Your task to perform on an android device: toggle pop-ups in chrome Image 0: 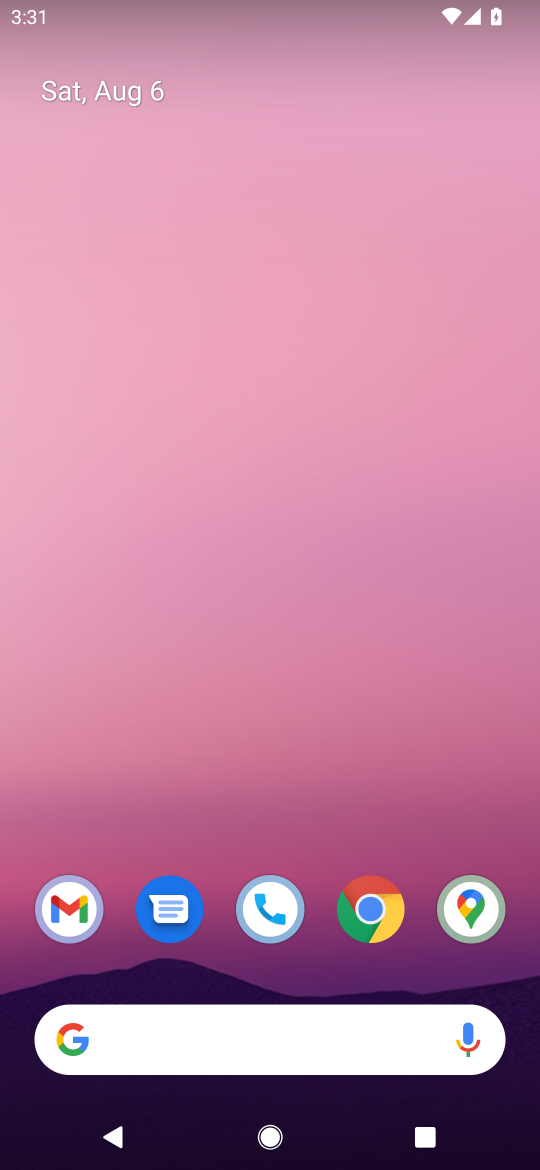
Step 0: click (364, 908)
Your task to perform on an android device: toggle pop-ups in chrome Image 1: 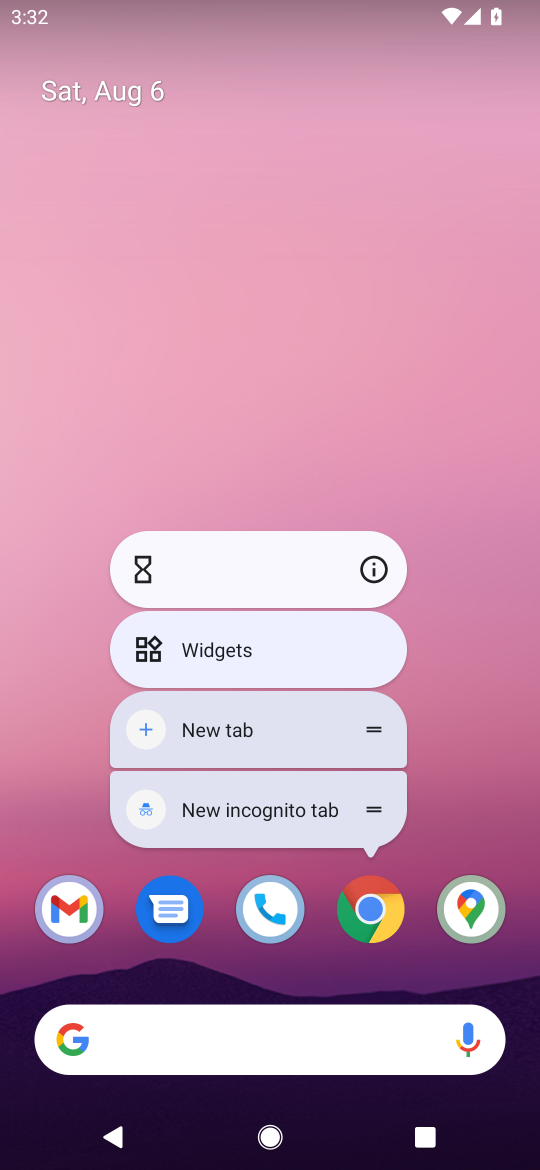
Step 1: click (393, 926)
Your task to perform on an android device: toggle pop-ups in chrome Image 2: 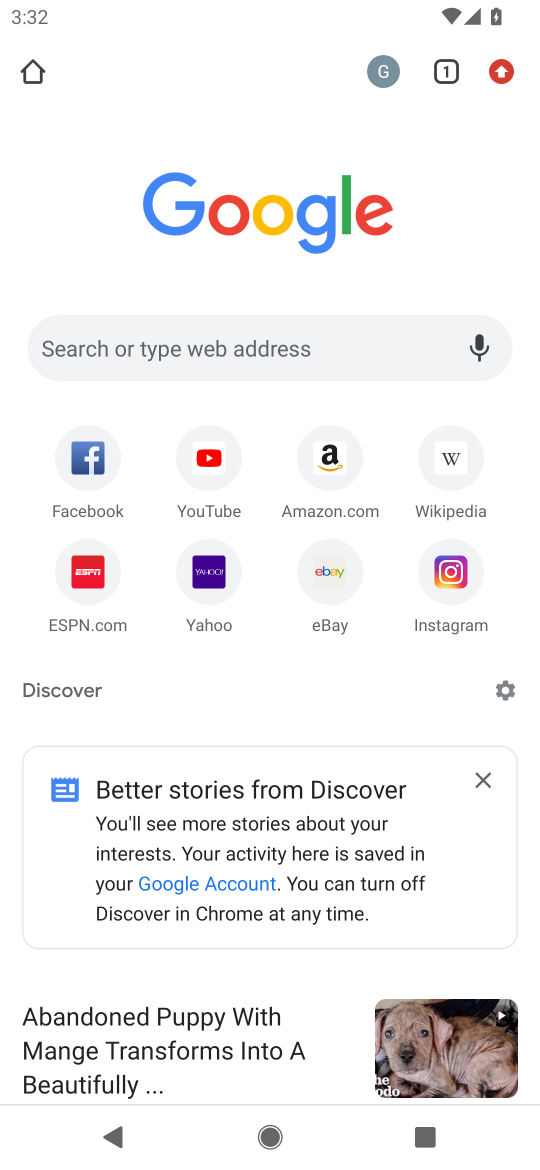
Step 2: drag from (498, 78) to (260, 736)
Your task to perform on an android device: toggle pop-ups in chrome Image 3: 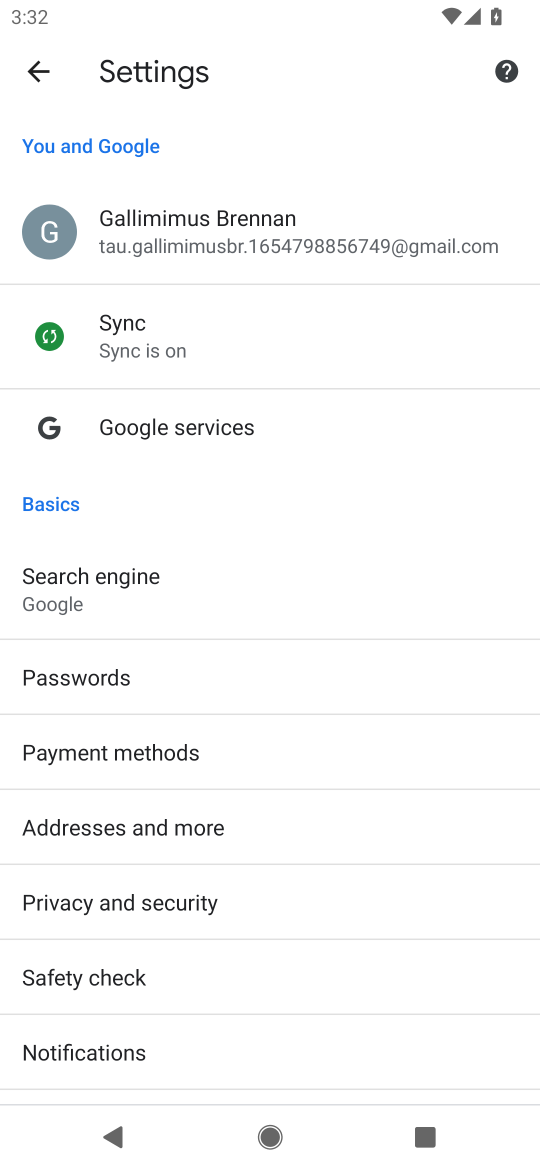
Step 3: drag from (107, 1031) to (336, 490)
Your task to perform on an android device: toggle pop-ups in chrome Image 4: 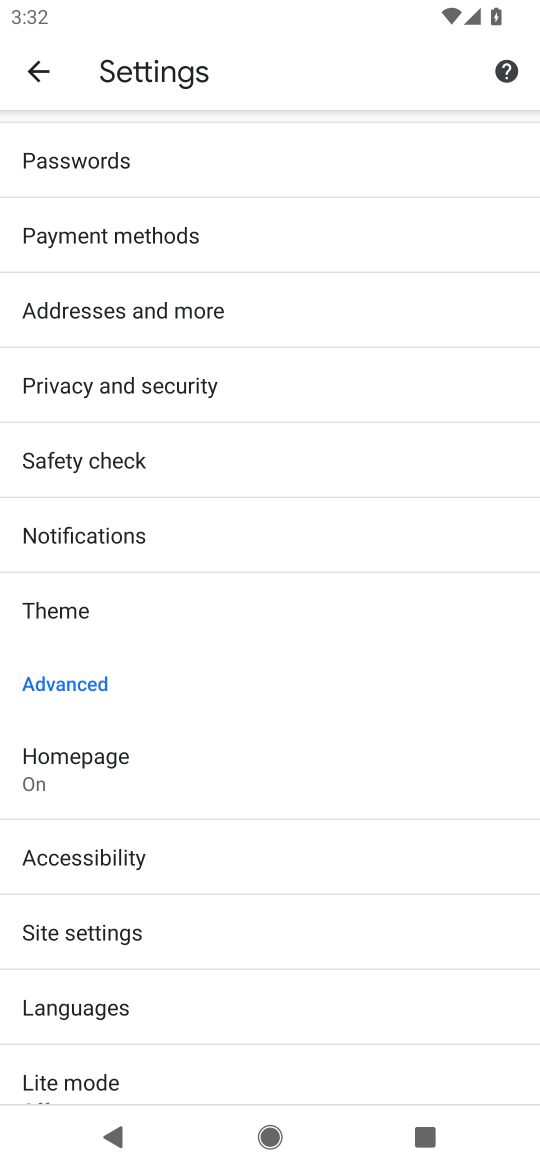
Step 4: click (145, 934)
Your task to perform on an android device: toggle pop-ups in chrome Image 5: 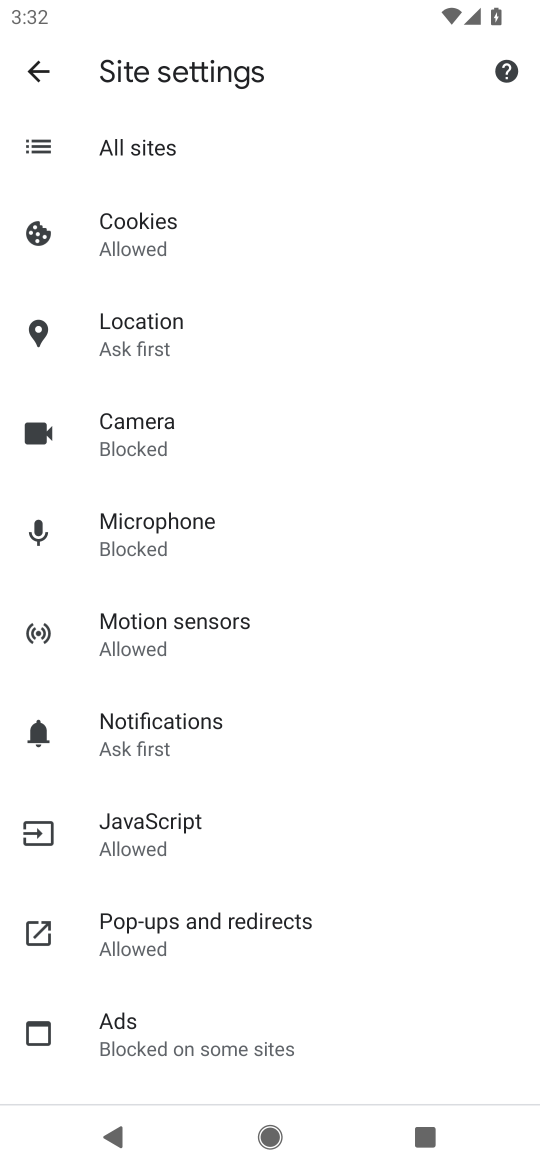
Step 5: click (153, 932)
Your task to perform on an android device: toggle pop-ups in chrome Image 6: 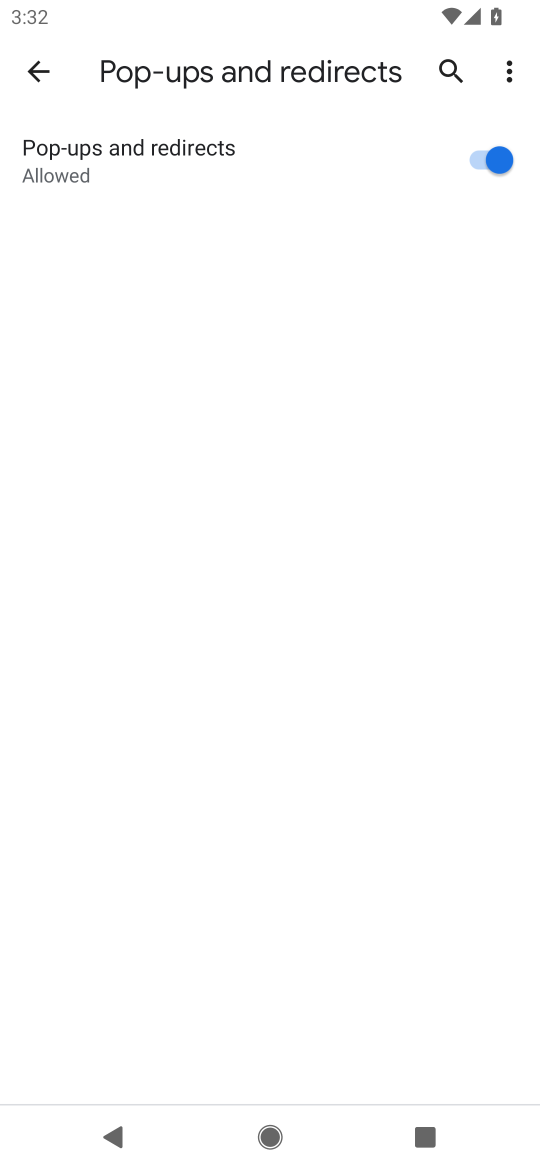
Step 6: click (510, 145)
Your task to perform on an android device: toggle pop-ups in chrome Image 7: 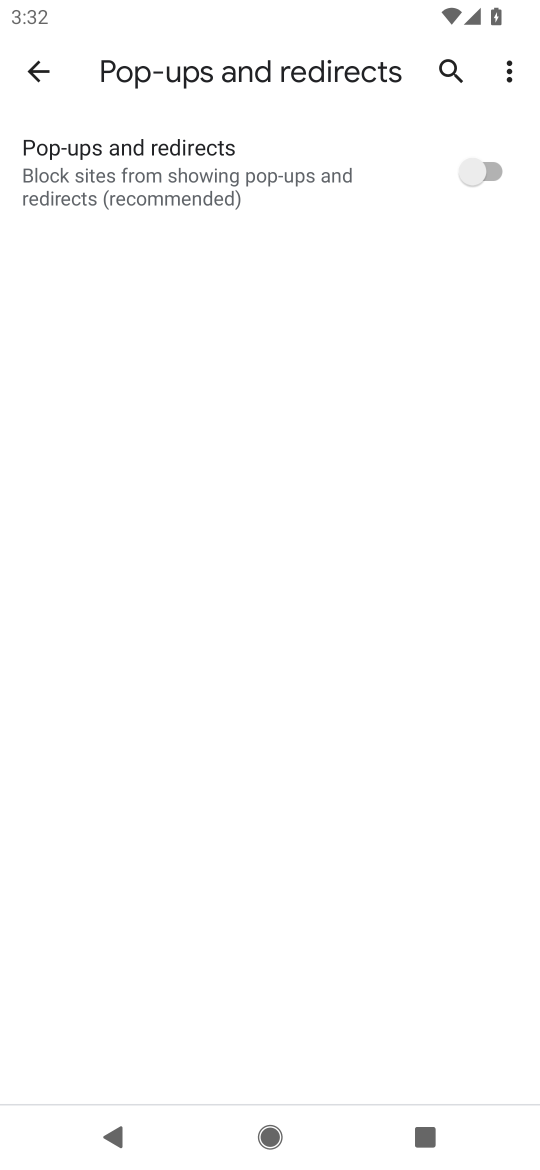
Step 7: task complete